Your task to perform on an android device: Search for good BBQ restaurants Image 0: 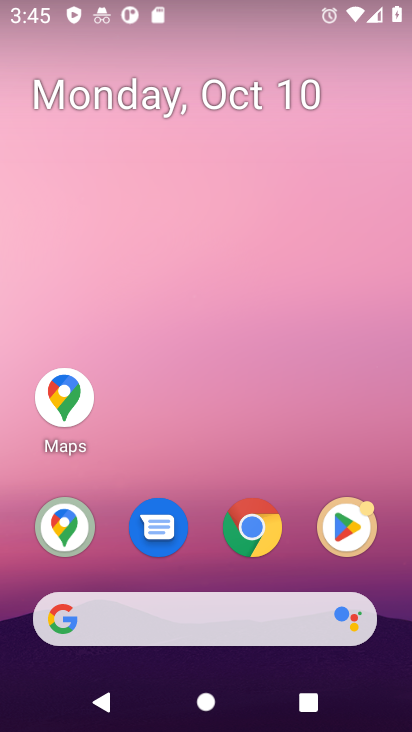
Step 0: drag from (182, 629) to (189, 136)
Your task to perform on an android device: Search for good BBQ restaurants Image 1: 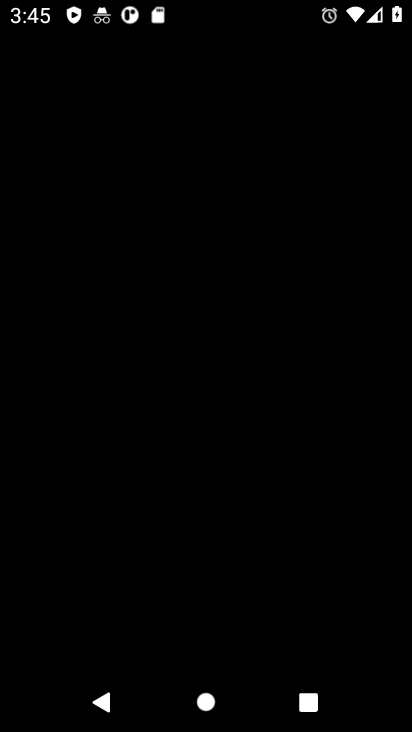
Step 1: press home button
Your task to perform on an android device: Search for good BBQ restaurants Image 2: 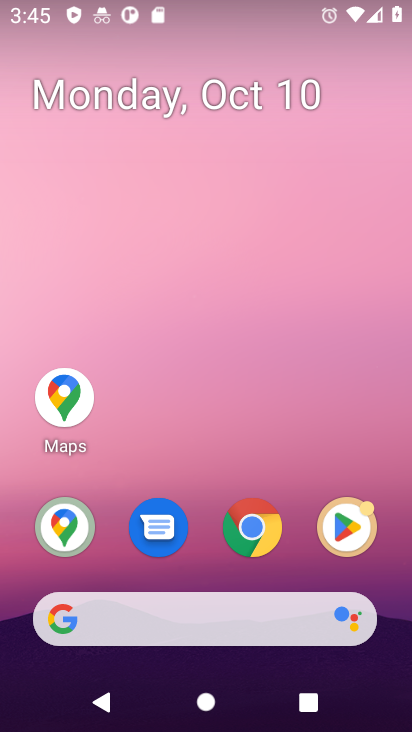
Step 2: click (70, 397)
Your task to perform on an android device: Search for good BBQ restaurants Image 3: 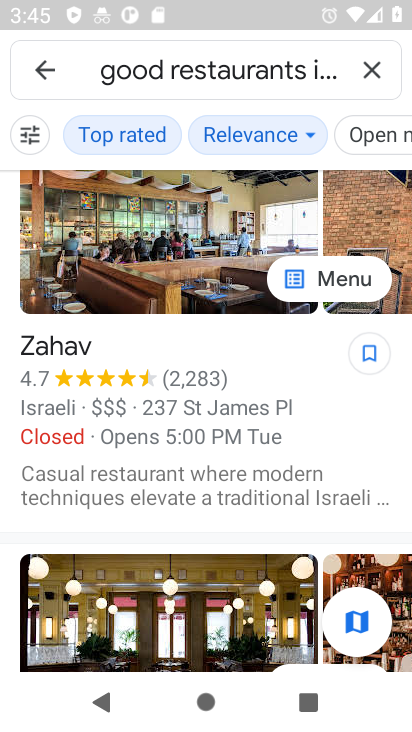
Step 3: click (367, 66)
Your task to perform on an android device: Search for good BBQ restaurants Image 4: 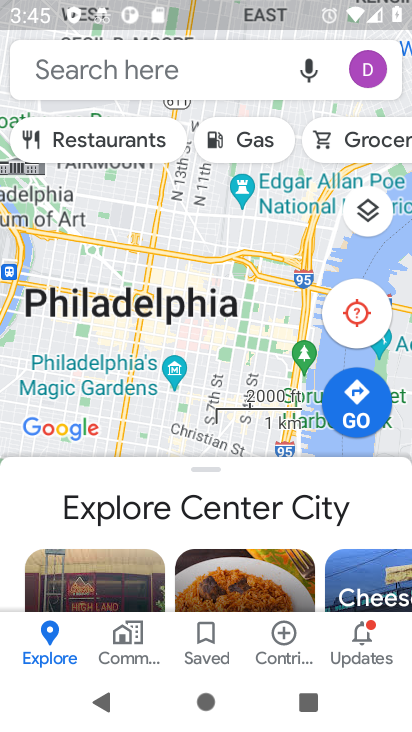
Step 4: click (216, 69)
Your task to perform on an android device: Search for good BBQ restaurants Image 5: 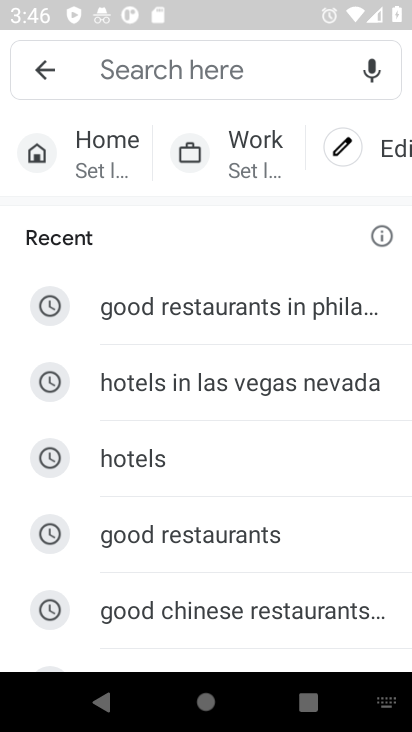
Step 5: type "good BBQ restaurants"
Your task to perform on an android device: Search for good BBQ restaurants Image 6: 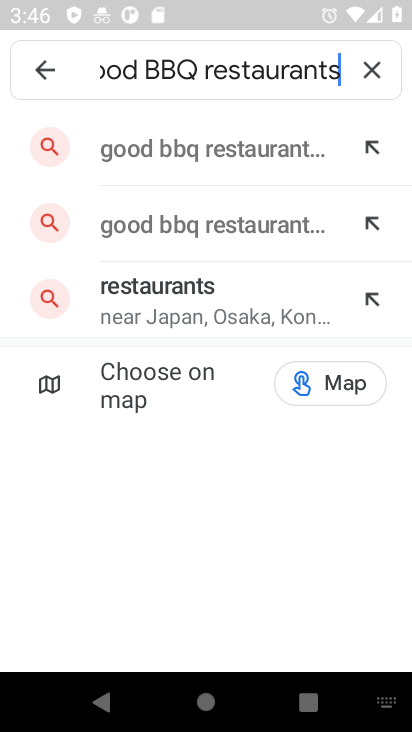
Step 6: click (203, 154)
Your task to perform on an android device: Search for good BBQ restaurants Image 7: 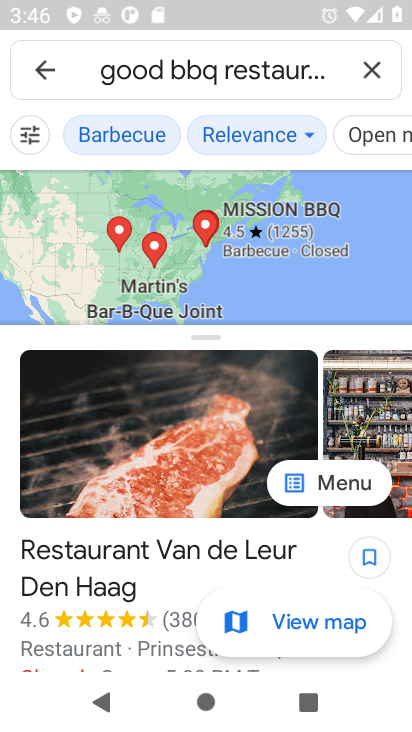
Step 7: task complete